Your task to perform on an android device: Toggle the flashlight Image 0: 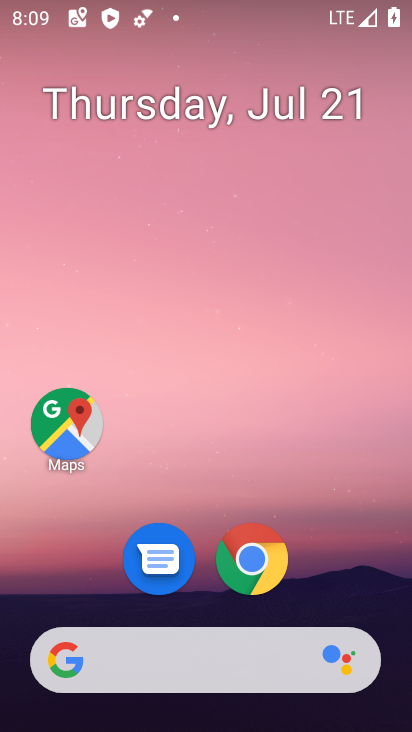
Step 0: drag from (235, 606) to (262, 178)
Your task to perform on an android device: Toggle the flashlight Image 1: 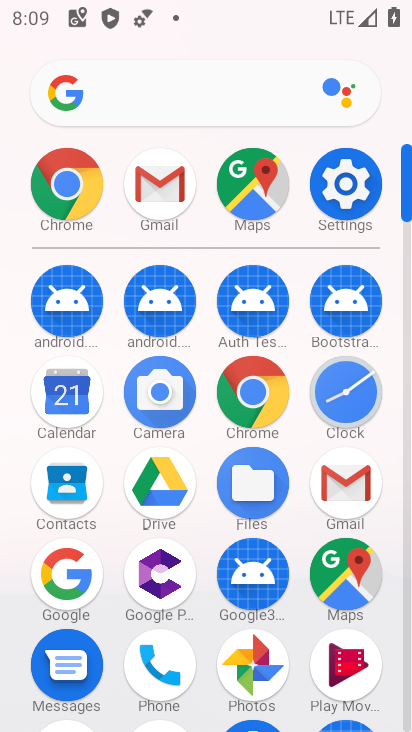
Step 1: task complete